Your task to perform on an android device: stop showing notifications on the lock screen Image 0: 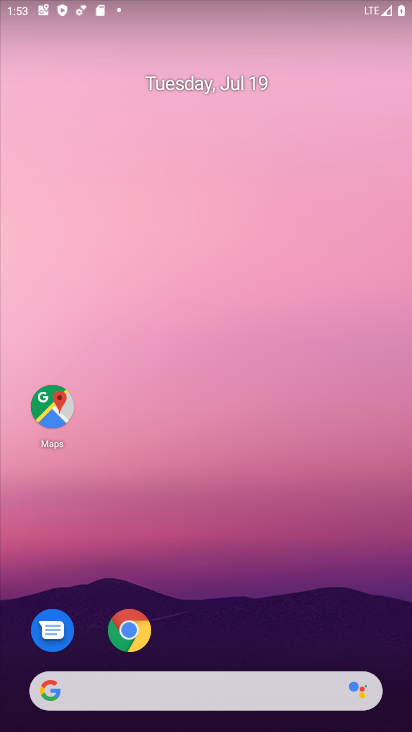
Step 0: drag from (221, 649) to (230, 126)
Your task to perform on an android device: stop showing notifications on the lock screen Image 1: 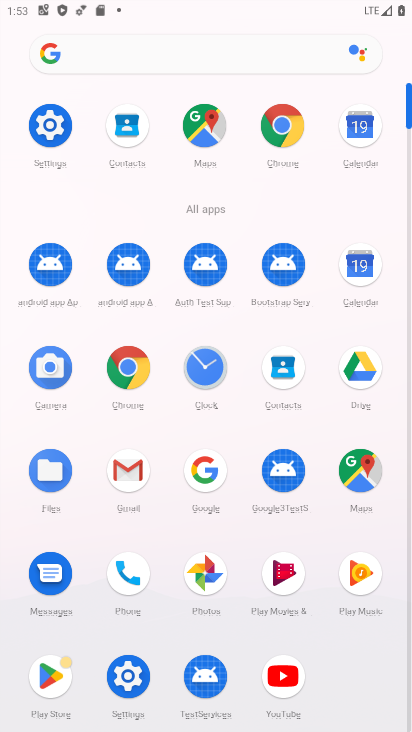
Step 1: click (44, 123)
Your task to perform on an android device: stop showing notifications on the lock screen Image 2: 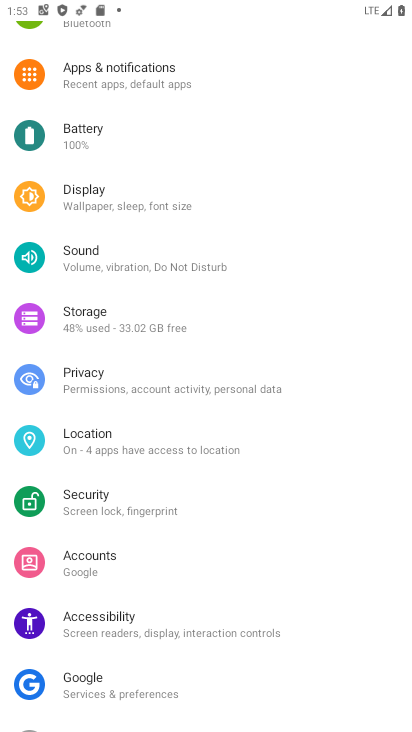
Step 2: click (128, 77)
Your task to perform on an android device: stop showing notifications on the lock screen Image 3: 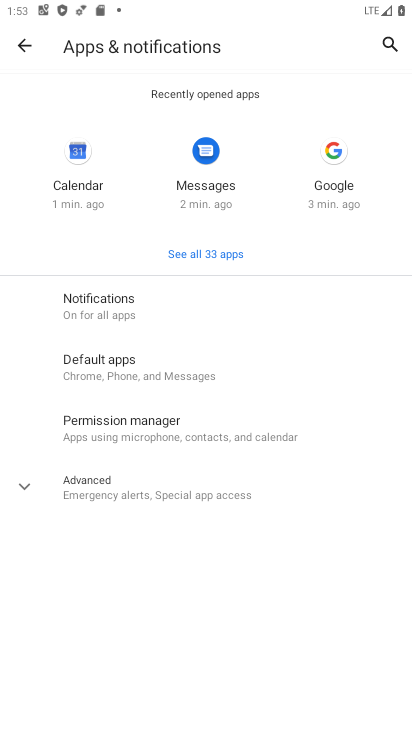
Step 3: click (126, 300)
Your task to perform on an android device: stop showing notifications on the lock screen Image 4: 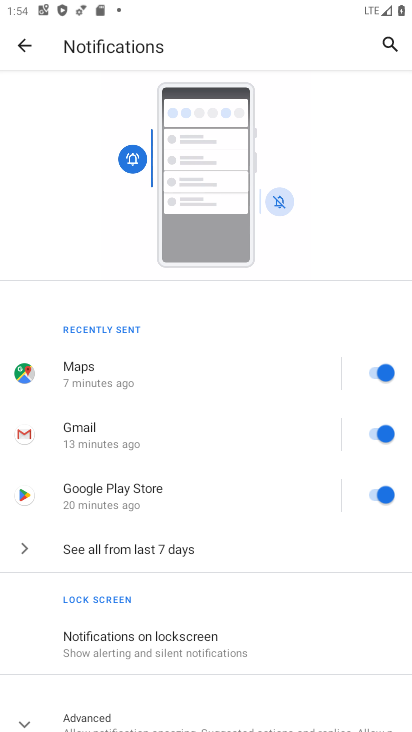
Step 4: click (185, 647)
Your task to perform on an android device: stop showing notifications on the lock screen Image 5: 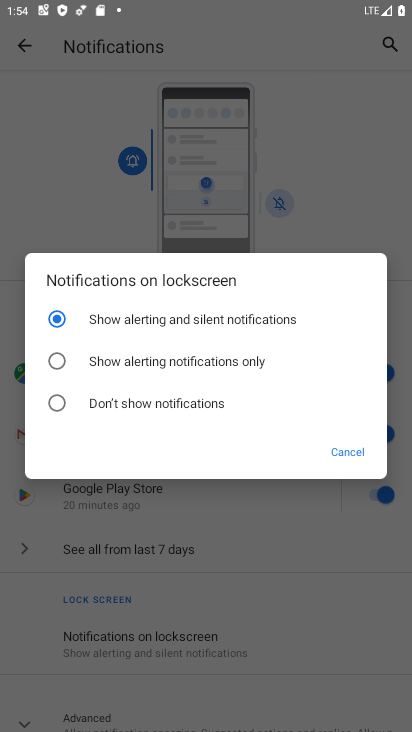
Step 5: click (55, 395)
Your task to perform on an android device: stop showing notifications on the lock screen Image 6: 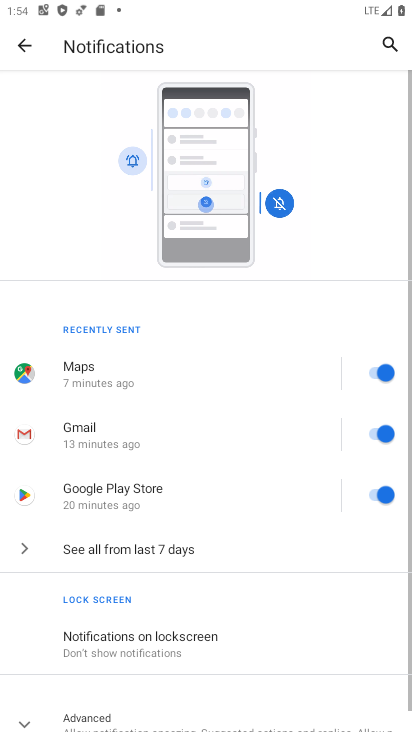
Step 6: task complete